Your task to perform on an android device: turn off location Image 0: 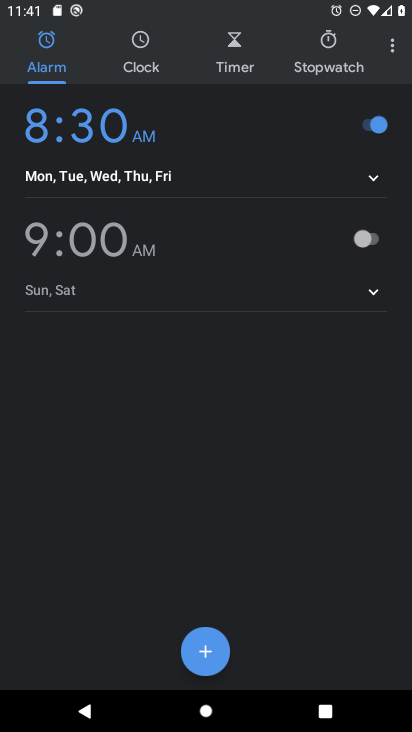
Step 0: press back button
Your task to perform on an android device: turn off location Image 1: 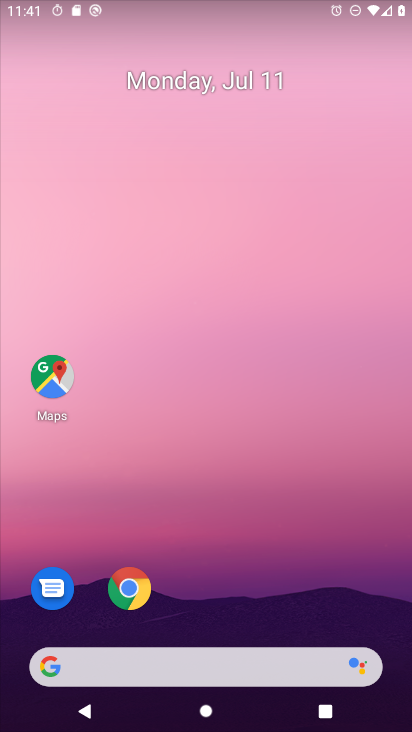
Step 1: drag from (181, 609) to (303, 23)
Your task to perform on an android device: turn off location Image 2: 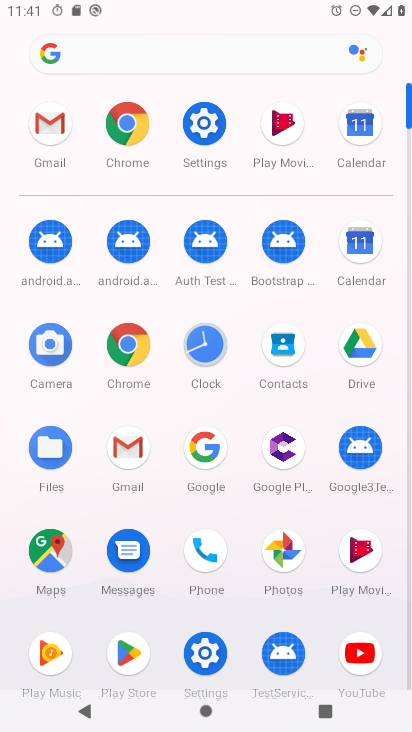
Step 2: click (193, 116)
Your task to perform on an android device: turn off location Image 3: 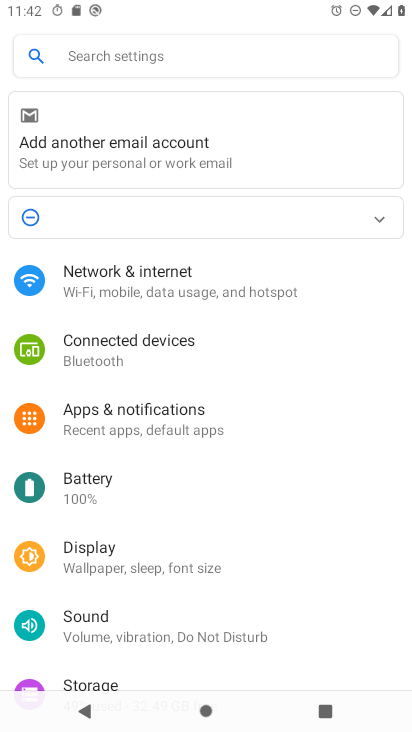
Step 3: drag from (201, 642) to (281, 122)
Your task to perform on an android device: turn off location Image 4: 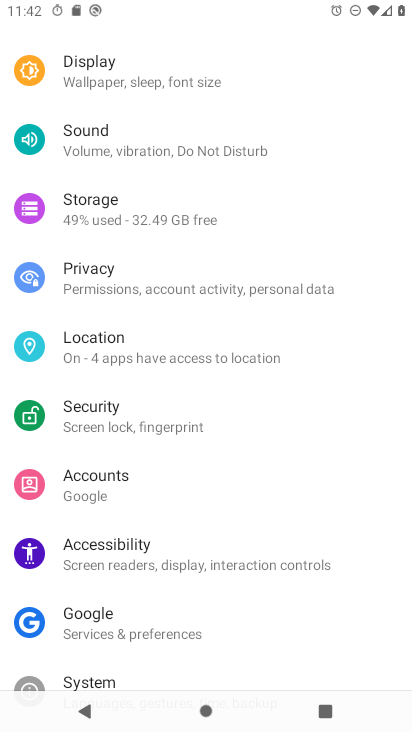
Step 4: click (139, 344)
Your task to perform on an android device: turn off location Image 5: 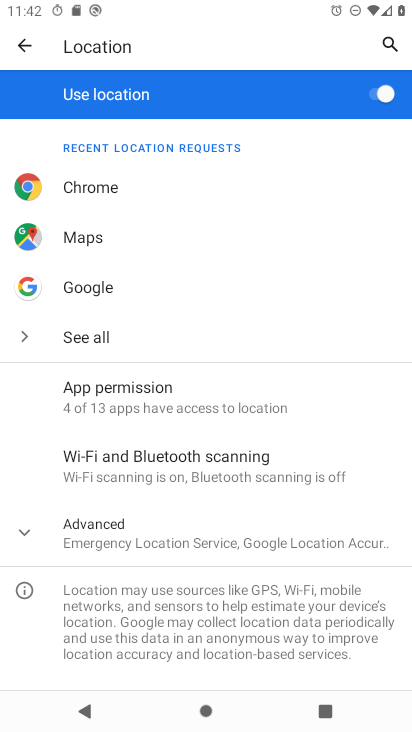
Step 5: click (379, 92)
Your task to perform on an android device: turn off location Image 6: 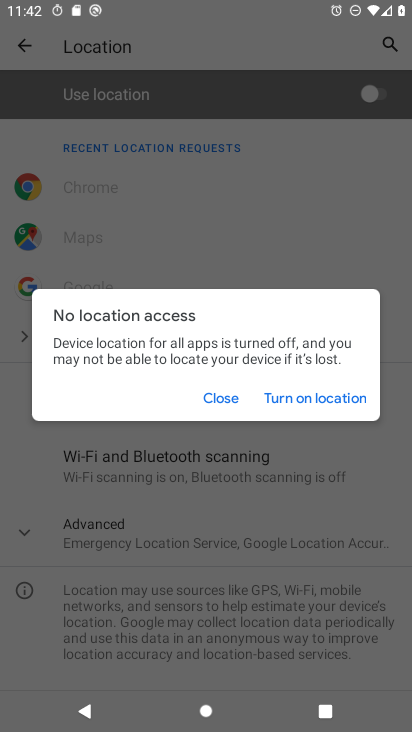
Step 6: task complete